Your task to perform on an android device: Show me popular videos on Youtube Image 0: 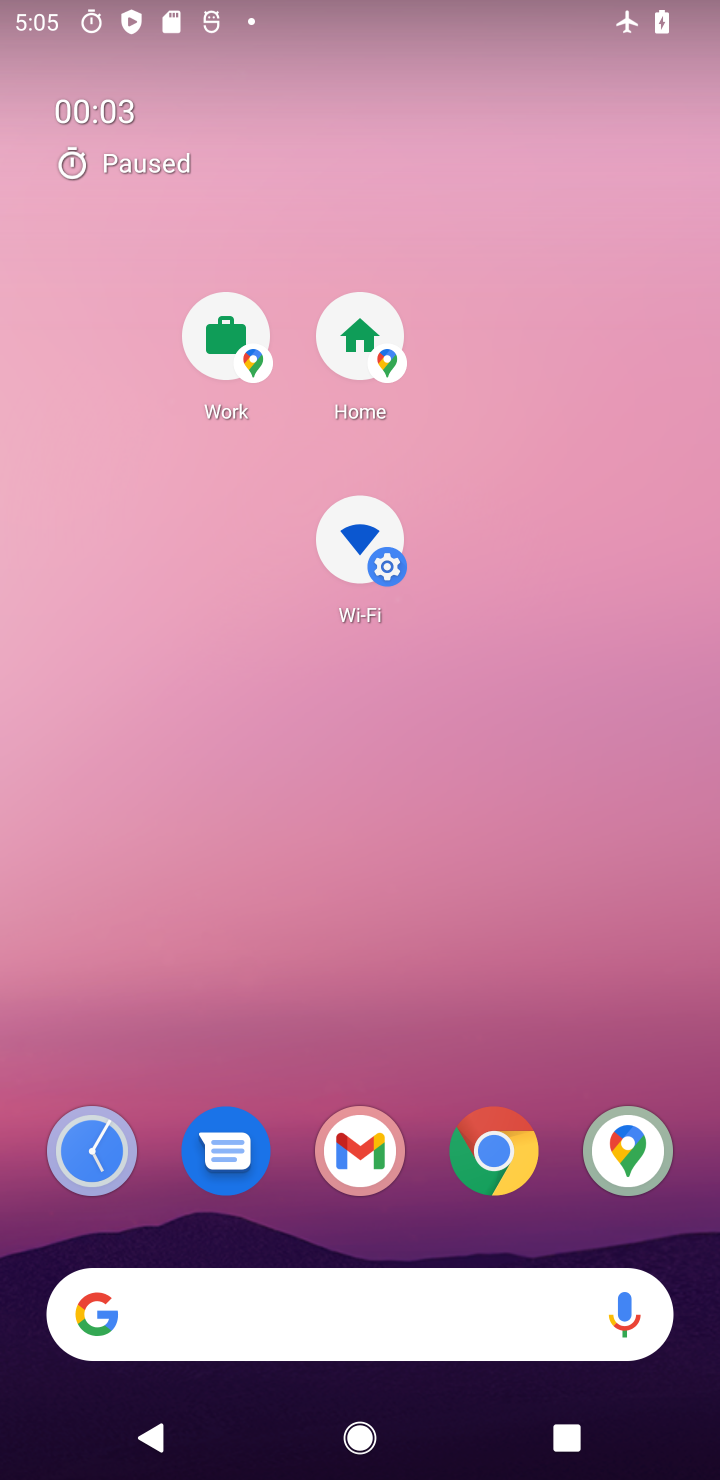
Step 0: drag from (298, 768) to (232, 542)
Your task to perform on an android device: Show me popular videos on Youtube Image 1: 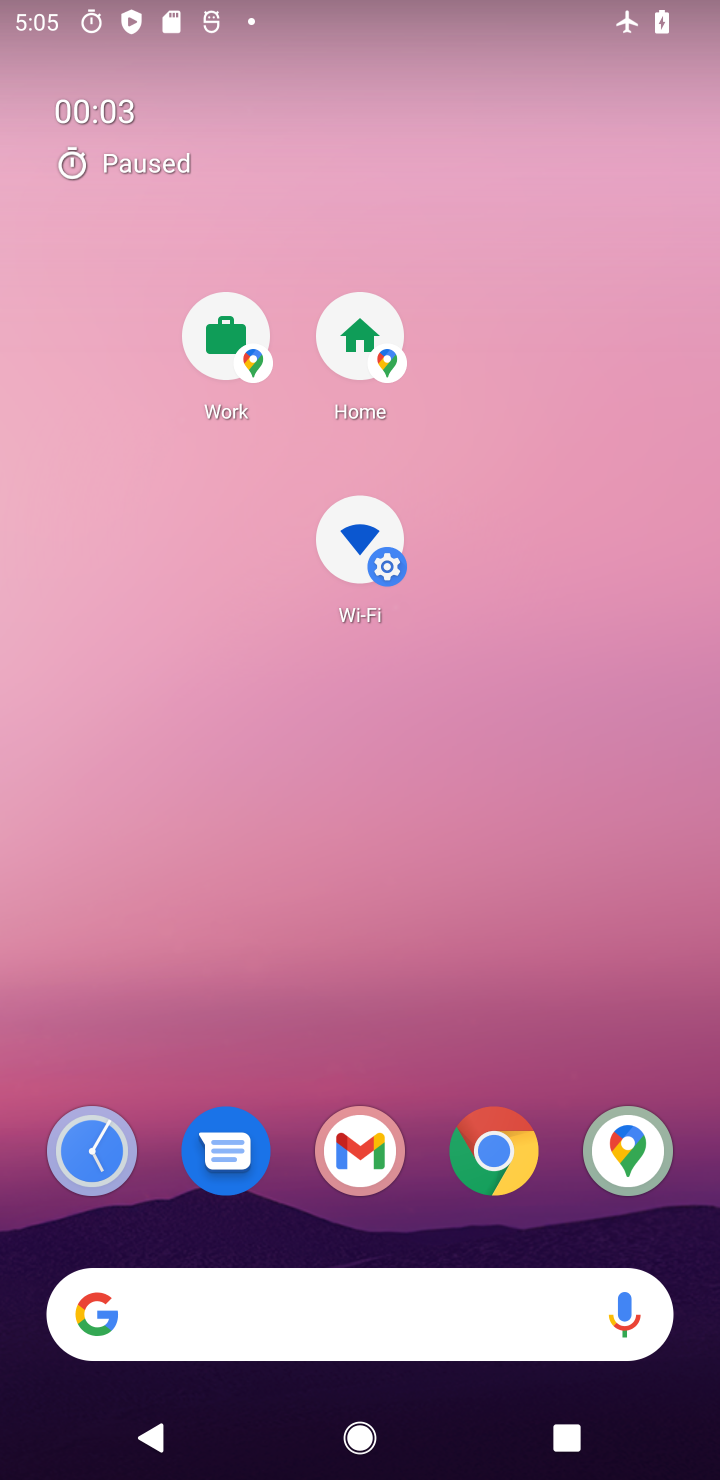
Step 1: click (326, 465)
Your task to perform on an android device: Show me popular videos on Youtube Image 2: 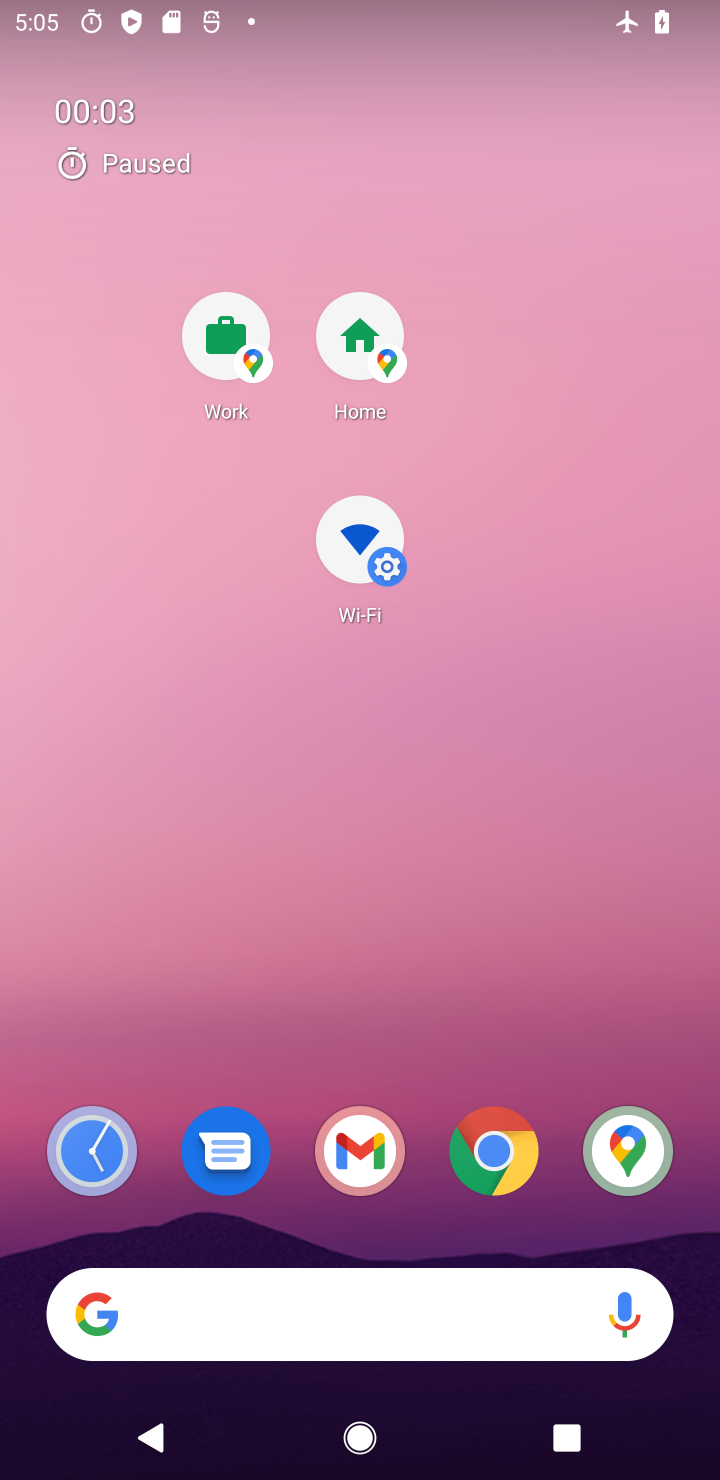
Step 2: drag from (413, 1050) to (371, 226)
Your task to perform on an android device: Show me popular videos on Youtube Image 3: 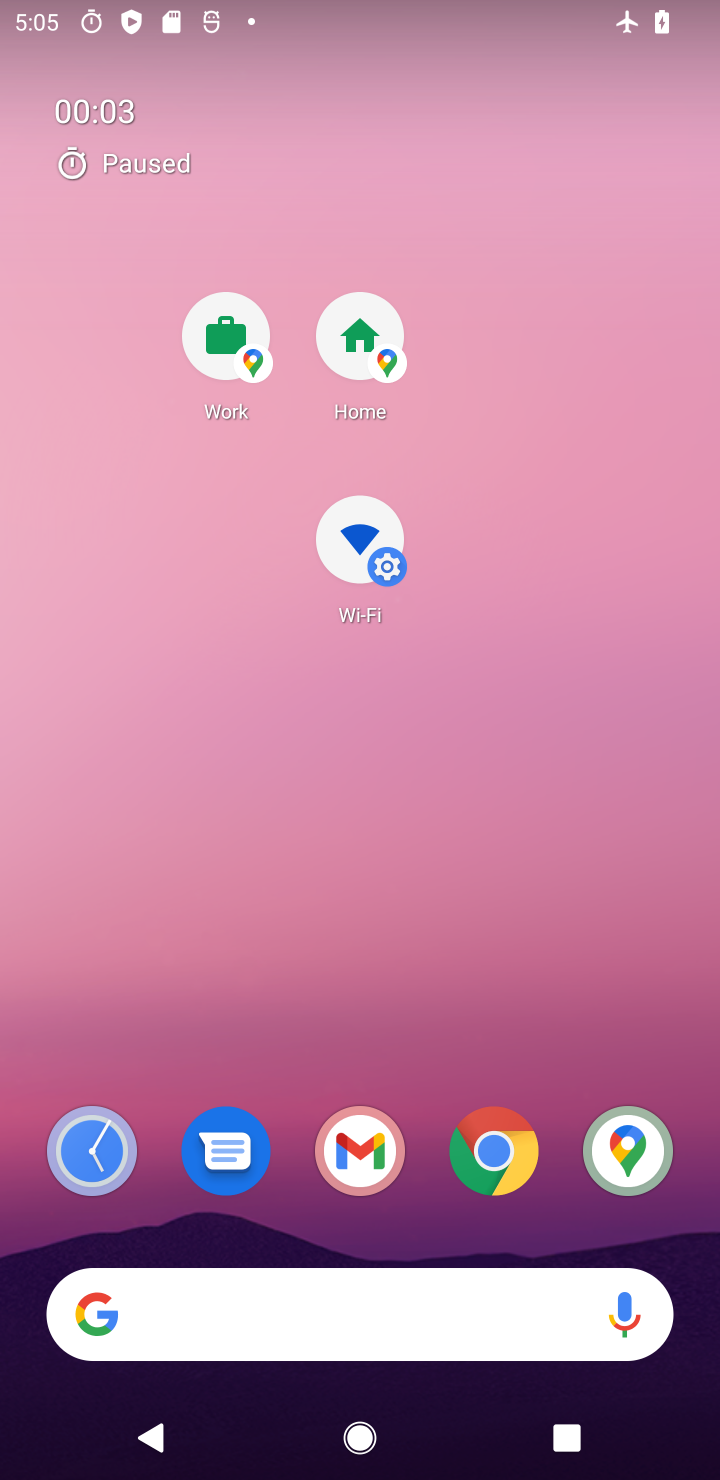
Step 3: drag from (383, 839) to (331, 119)
Your task to perform on an android device: Show me popular videos on Youtube Image 4: 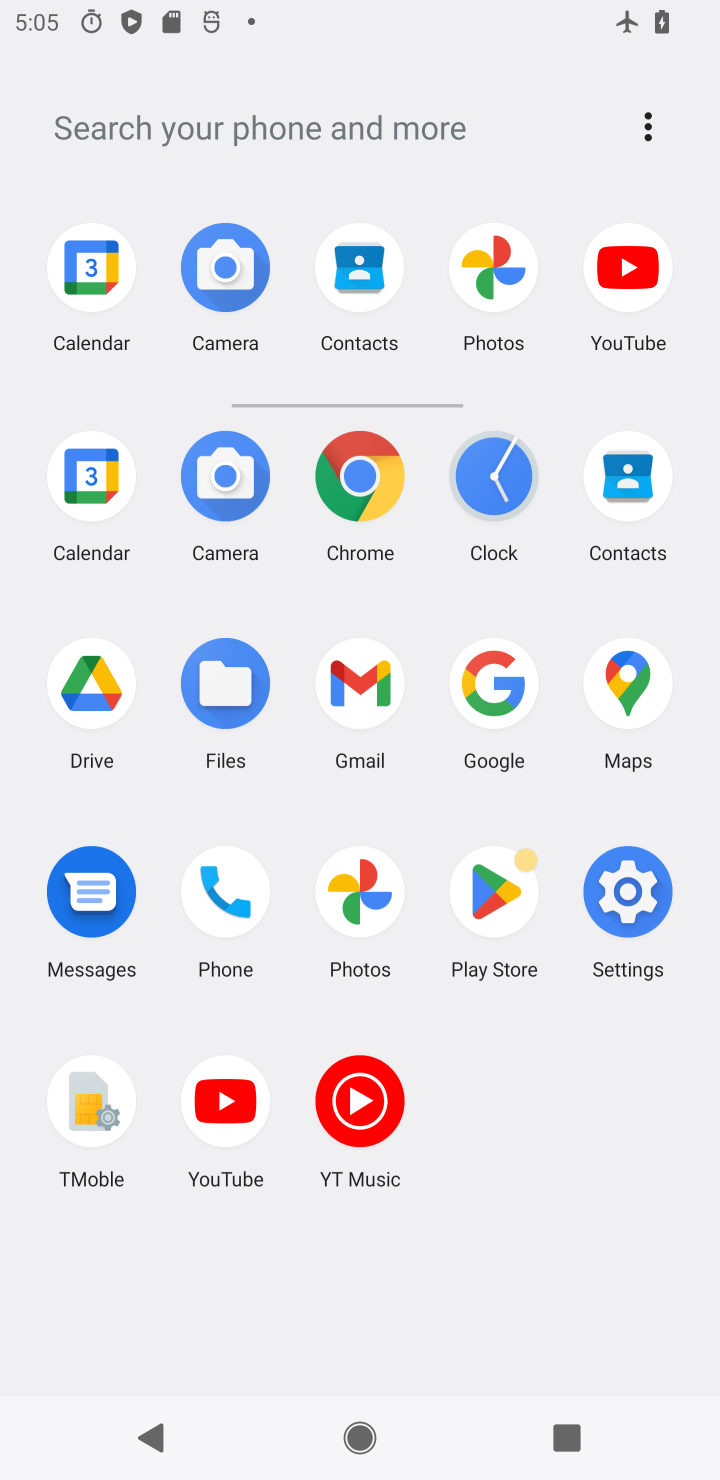
Step 4: drag from (382, 390) to (385, 98)
Your task to perform on an android device: Show me popular videos on Youtube Image 5: 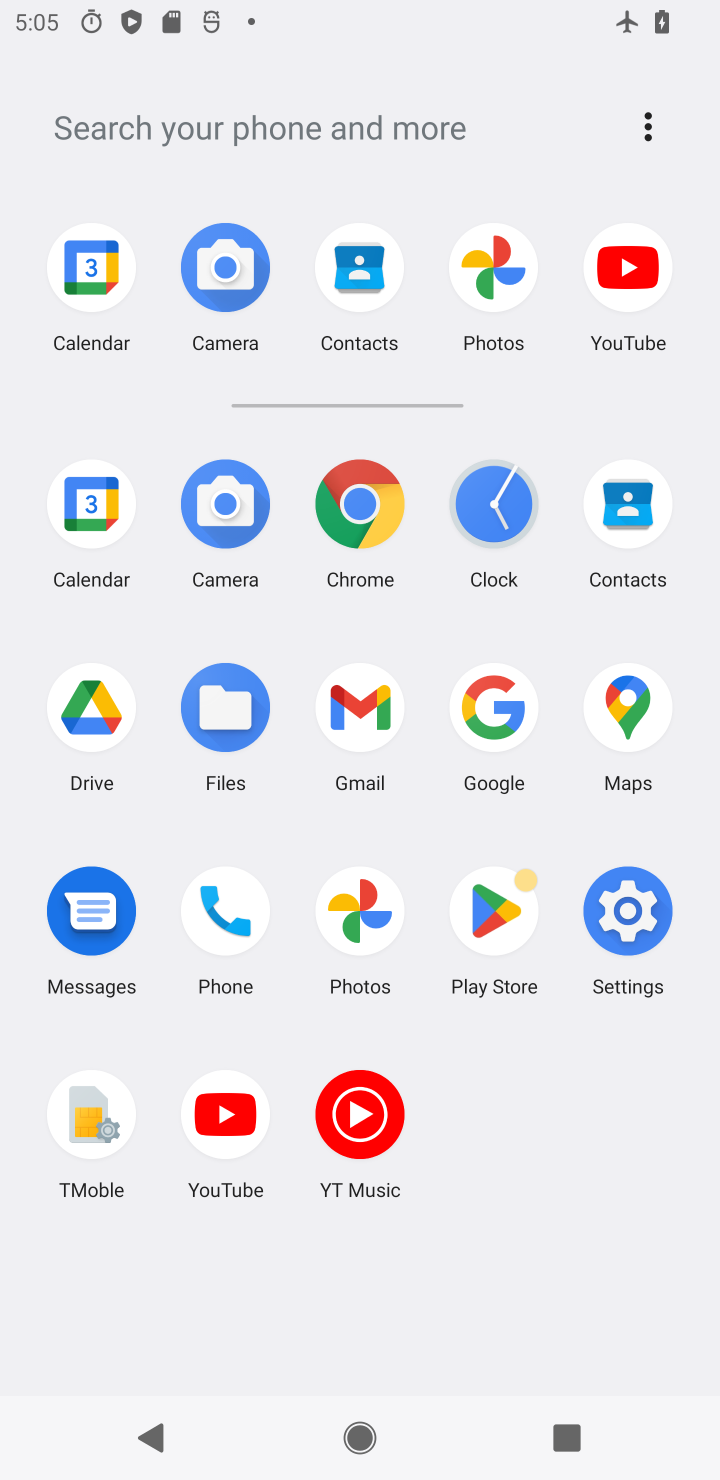
Step 5: click (216, 1104)
Your task to perform on an android device: Show me popular videos on Youtube Image 6: 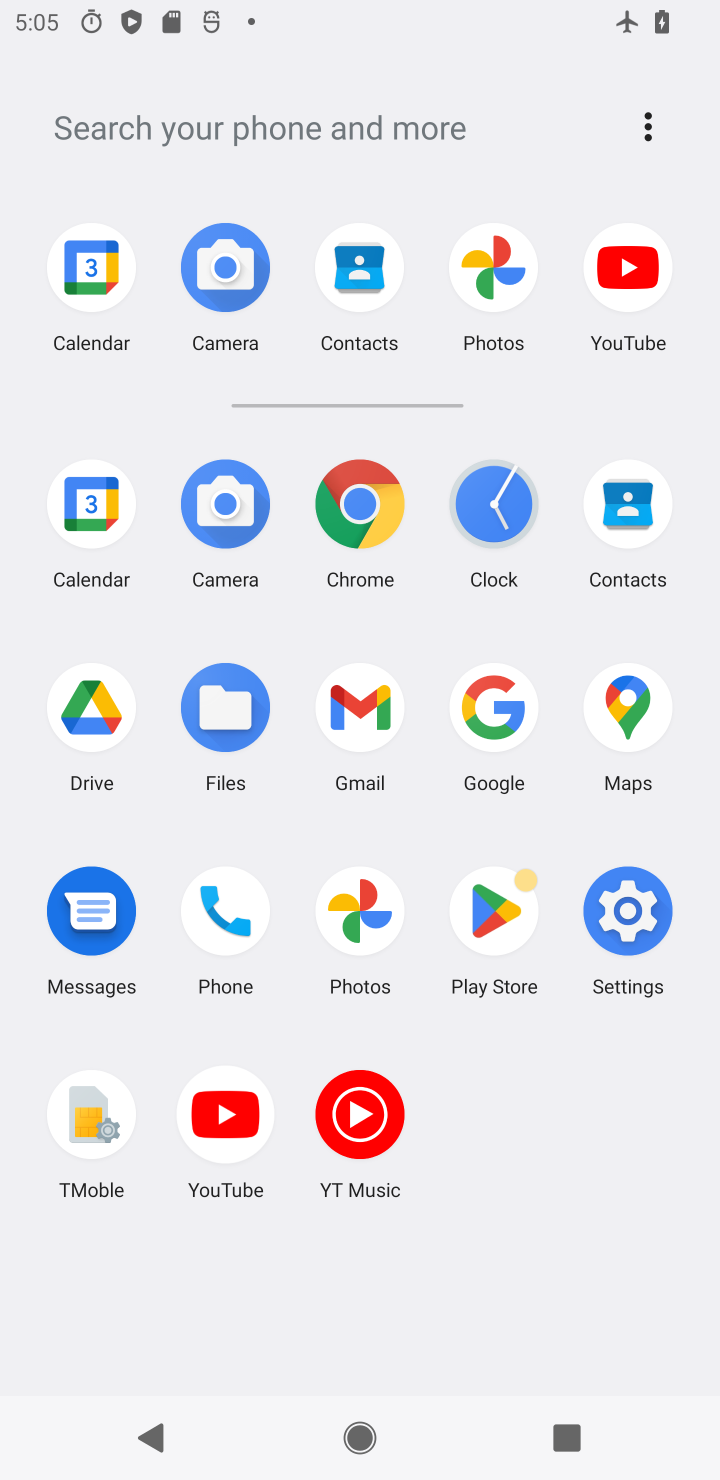
Step 6: click (216, 1104)
Your task to perform on an android device: Show me popular videos on Youtube Image 7: 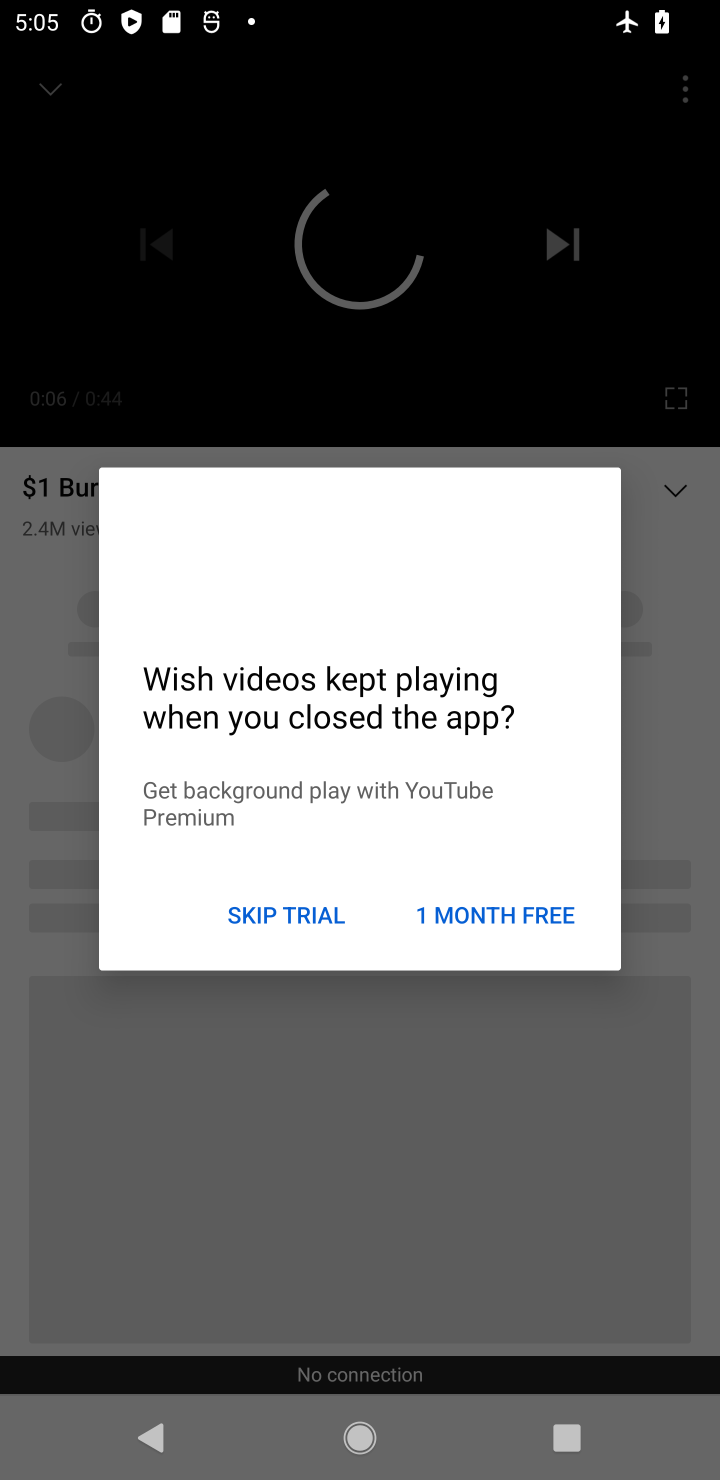
Step 7: click (285, 905)
Your task to perform on an android device: Show me popular videos on Youtube Image 8: 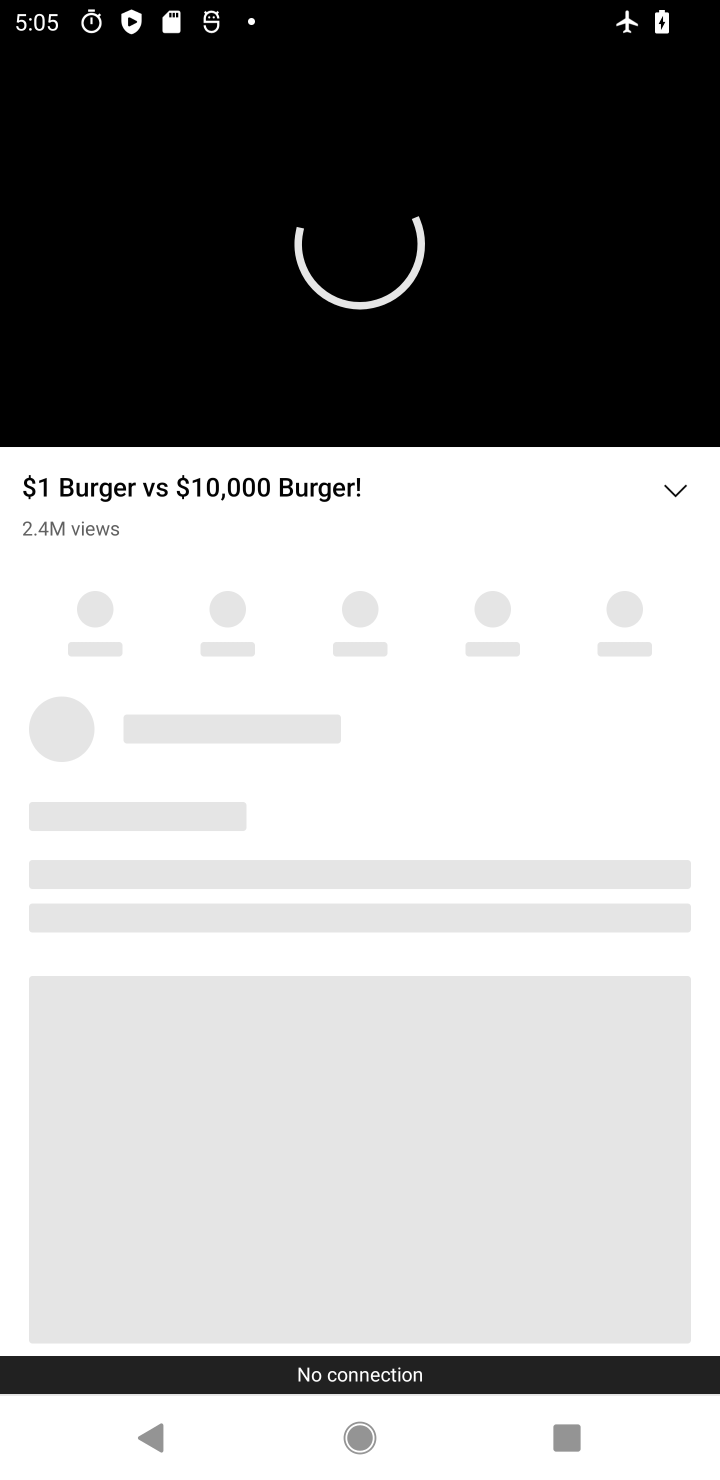
Step 8: drag from (207, 949) to (401, 308)
Your task to perform on an android device: Show me popular videos on Youtube Image 9: 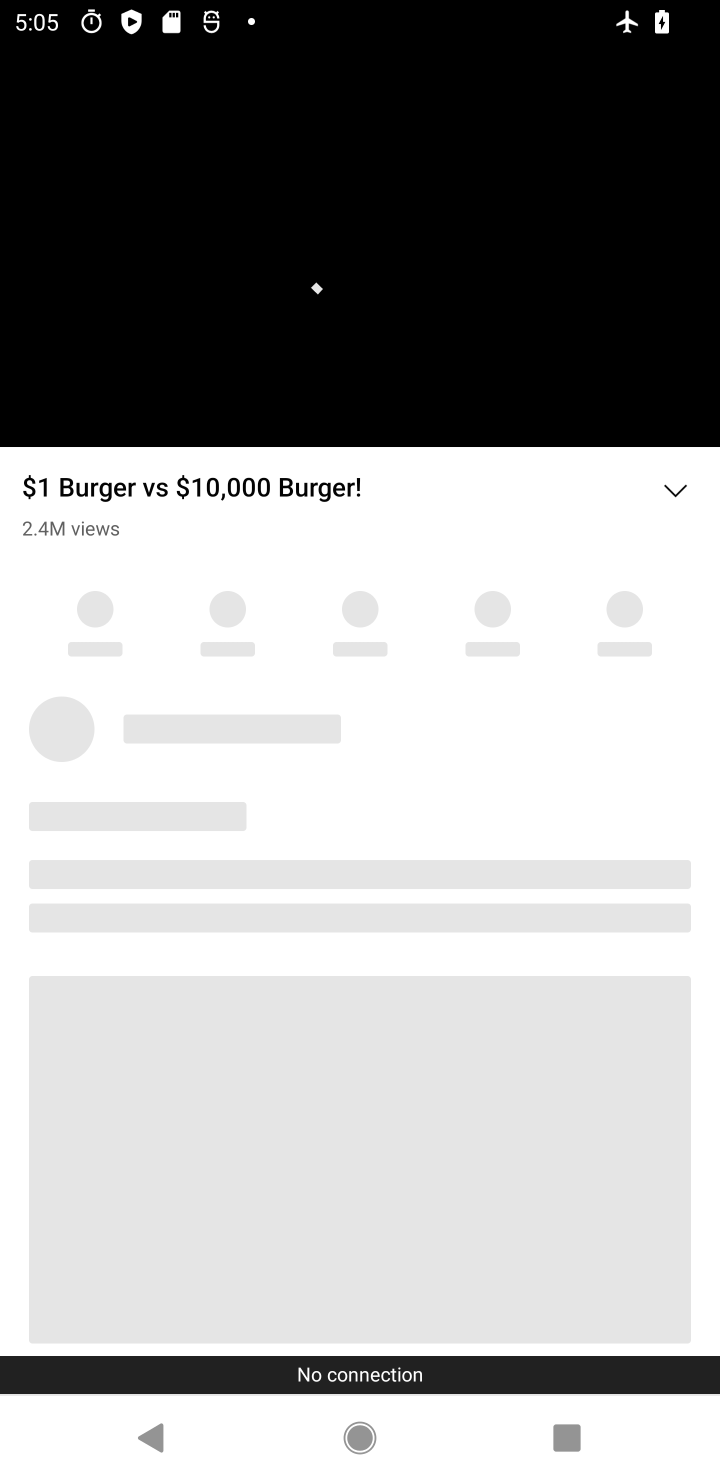
Step 9: drag from (398, 740) to (447, 156)
Your task to perform on an android device: Show me popular videos on Youtube Image 10: 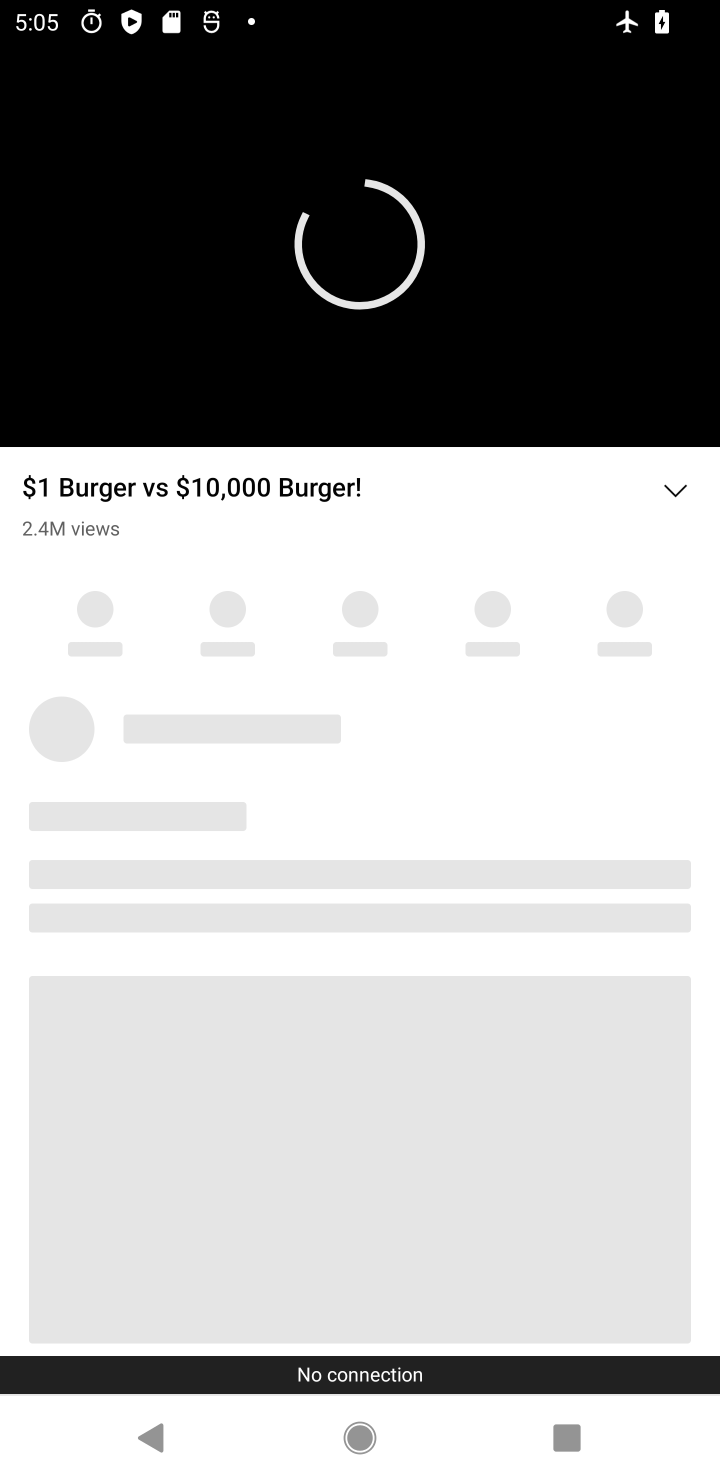
Step 10: drag from (477, 645) to (549, 860)
Your task to perform on an android device: Show me popular videos on Youtube Image 11: 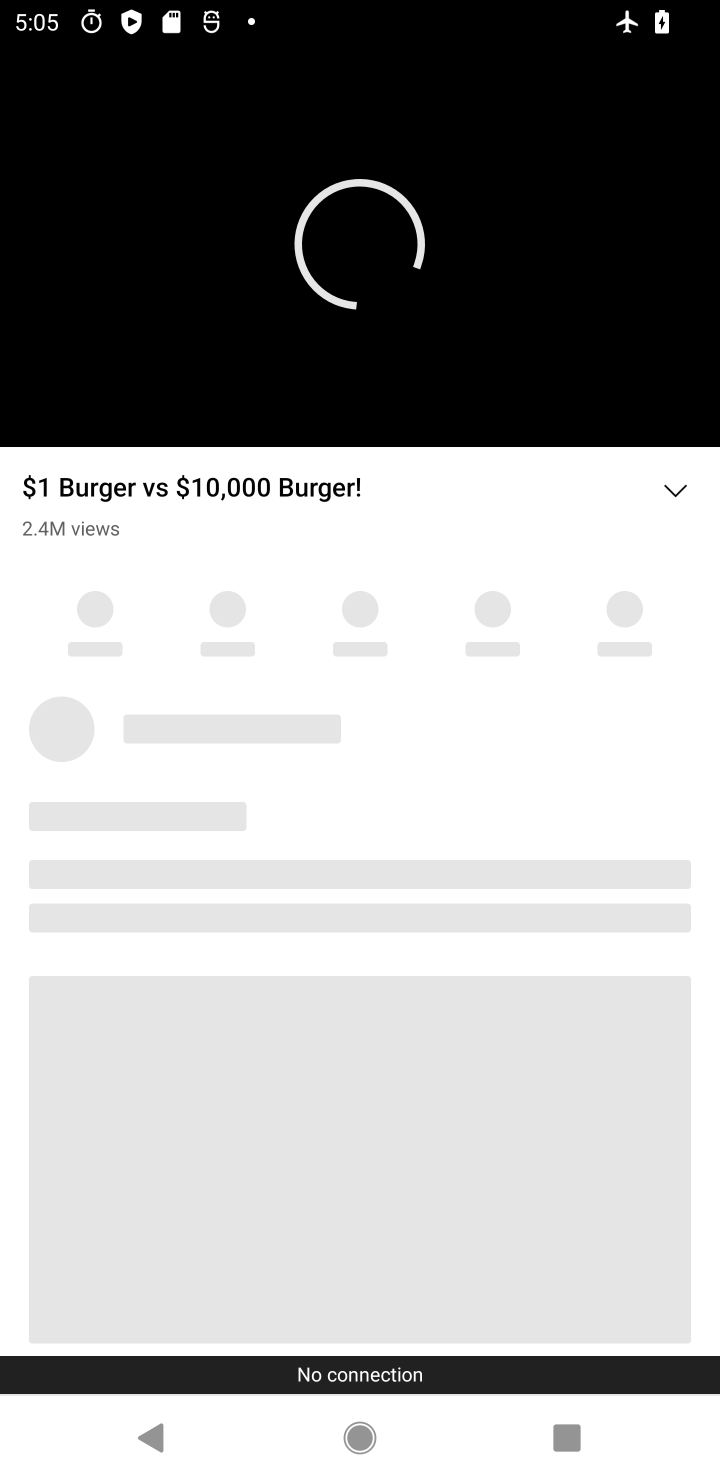
Step 11: drag from (479, 379) to (479, 919)
Your task to perform on an android device: Show me popular videos on Youtube Image 12: 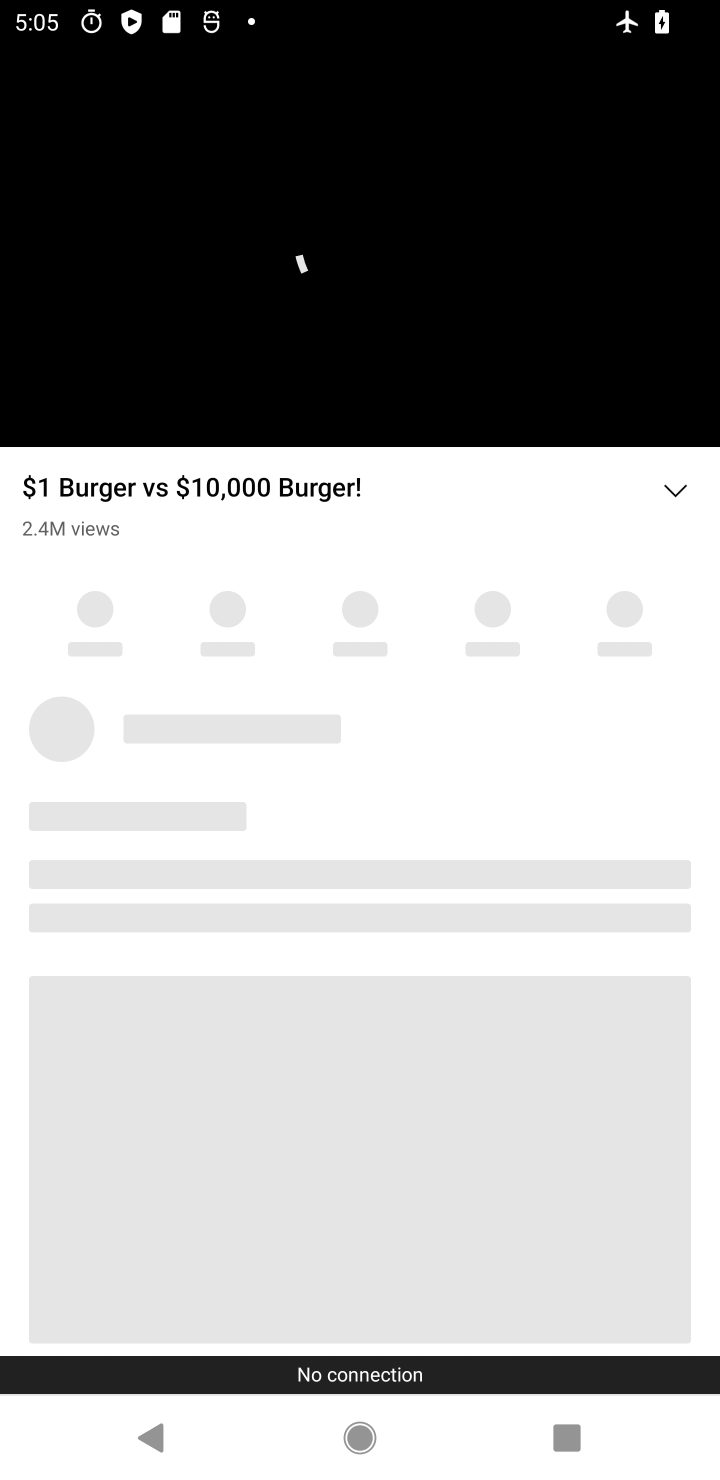
Step 12: drag from (366, 386) to (445, 883)
Your task to perform on an android device: Show me popular videos on Youtube Image 13: 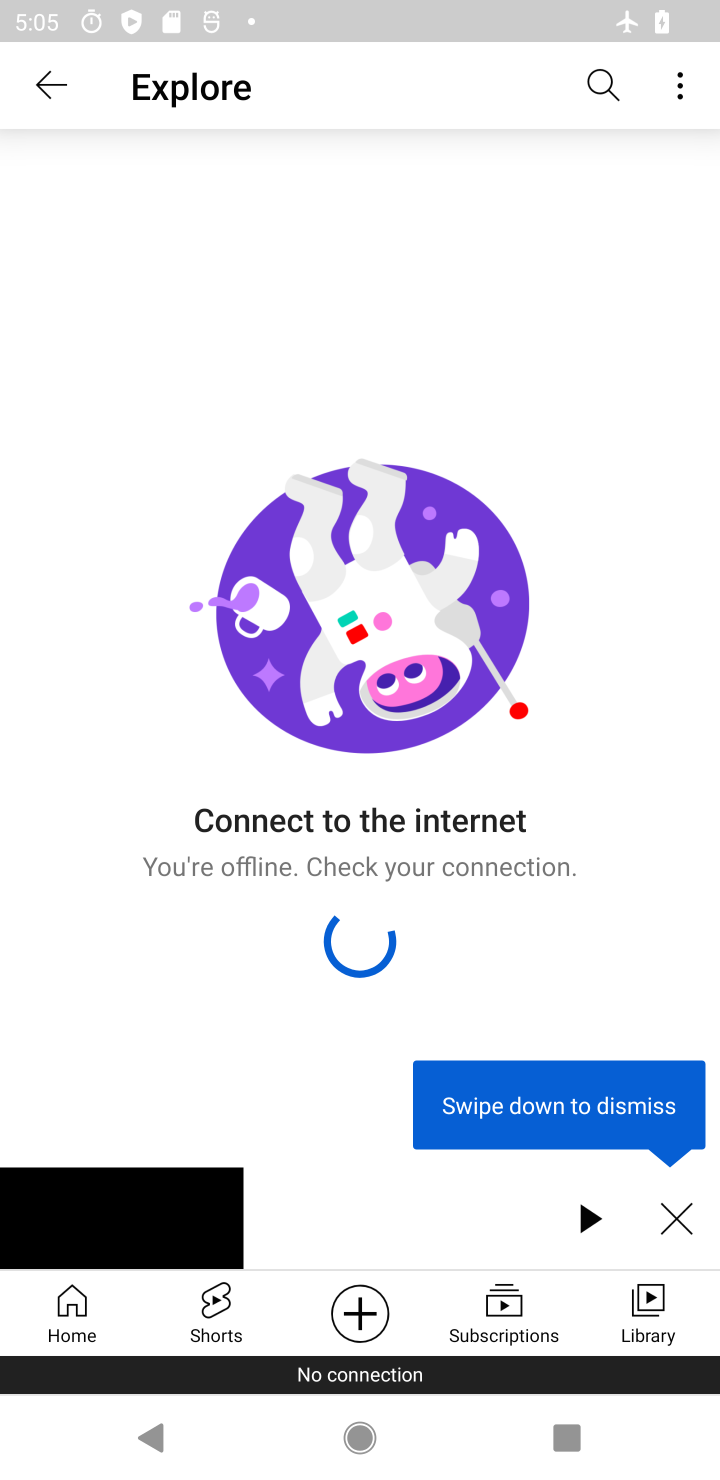
Step 13: click (105, 1224)
Your task to perform on an android device: Show me popular videos on Youtube Image 14: 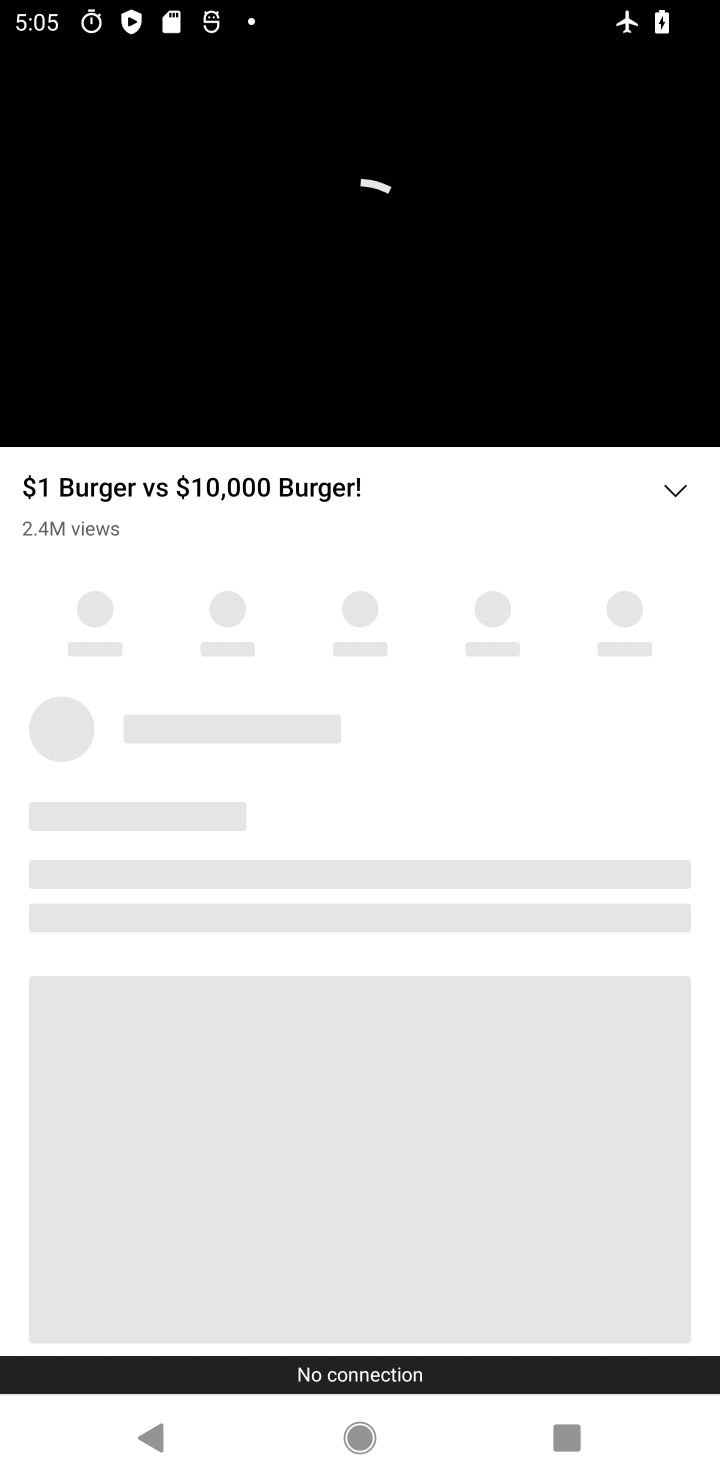
Step 14: task complete